Your task to perform on an android device: What's the weather going to be tomorrow? Image 0: 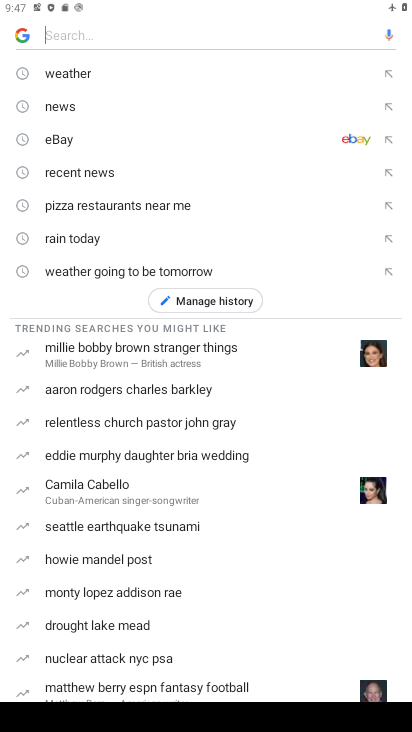
Step 0: press home button
Your task to perform on an android device: What's the weather going to be tomorrow? Image 1: 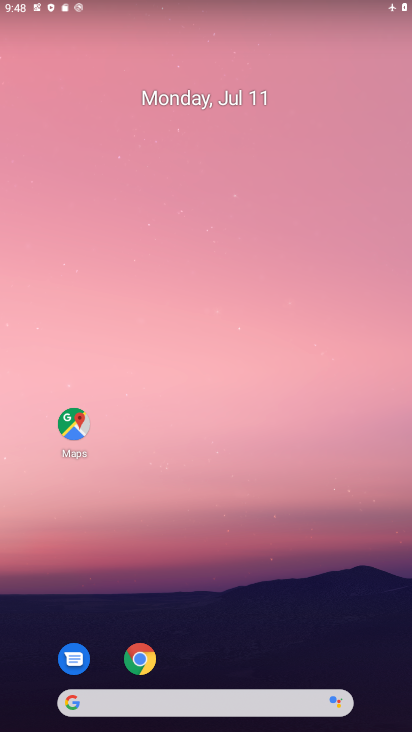
Step 1: drag from (200, 719) to (189, 130)
Your task to perform on an android device: What's the weather going to be tomorrow? Image 2: 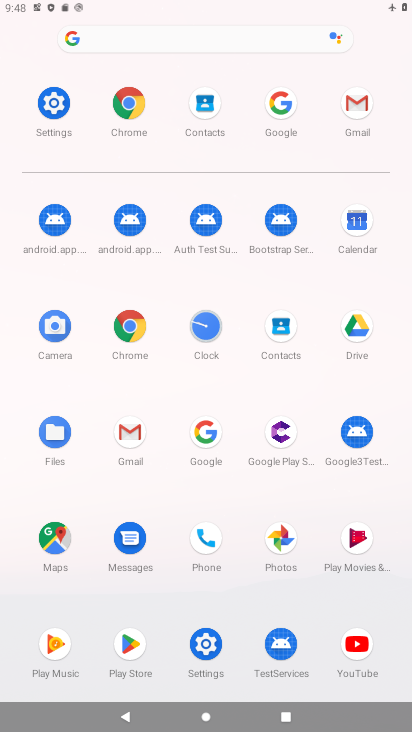
Step 2: click (195, 427)
Your task to perform on an android device: What's the weather going to be tomorrow? Image 3: 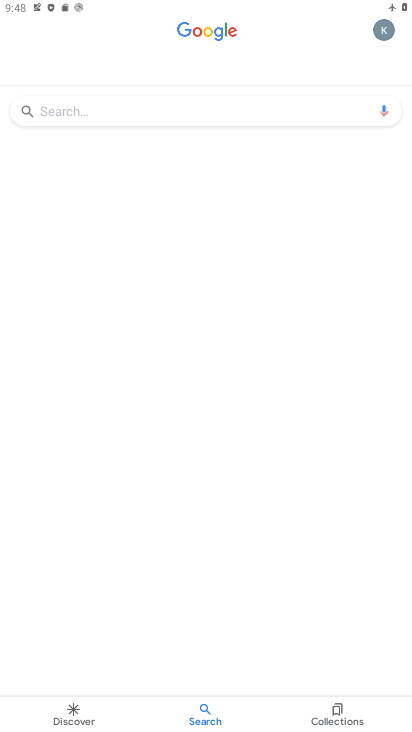
Step 3: click (251, 220)
Your task to perform on an android device: What's the weather going to be tomorrow? Image 4: 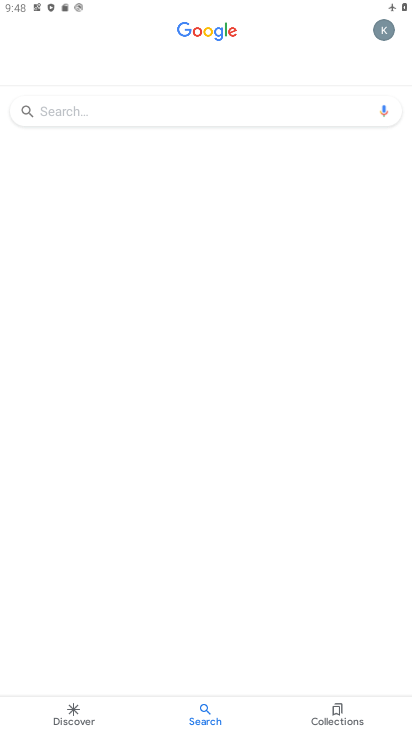
Step 4: drag from (264, 406) to (266, 670)
Your task to perform on an android device: What's the weather going to be tomorrow? Image 5: 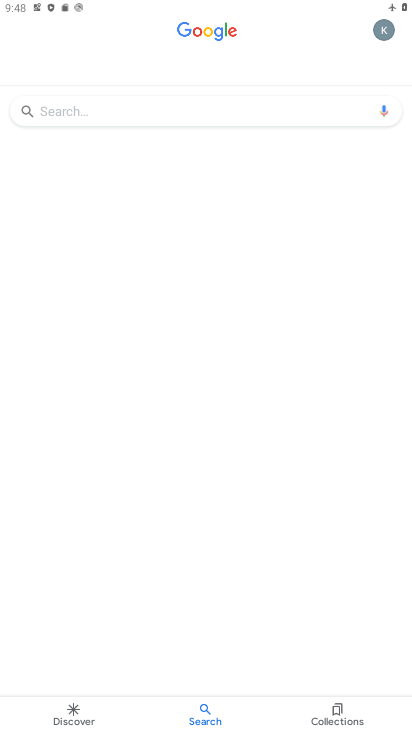
Step 5: click (70, 712)
Your task to perform on an android device: What's the weather going to be tomorrow? Image 6: 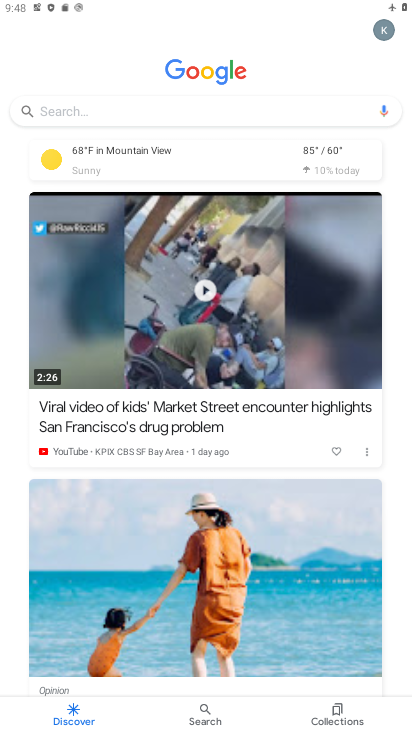
Step 6: click (307, 148)
Your task to perform on an android device: What's the weather going to be tomorrow? Image 7: 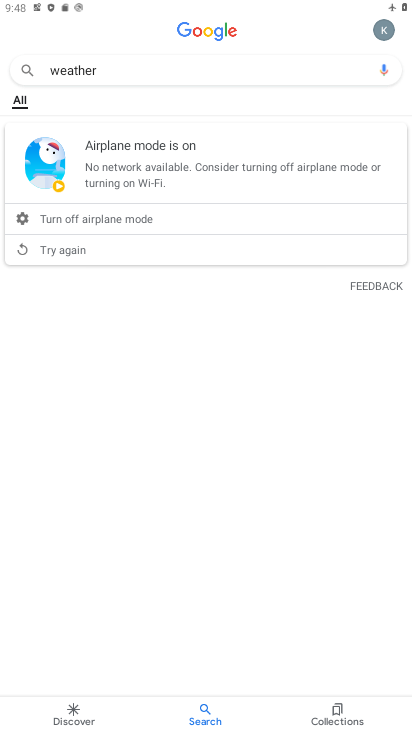
Step 7: task complete